Your task to perform on an android device: turn off wifi Image 0: 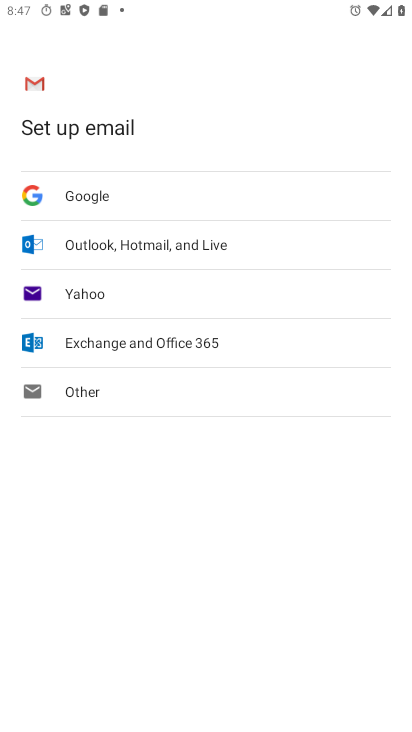
Step 0: press home button
Your task to perform on an android device: turn off wifi Image 1: 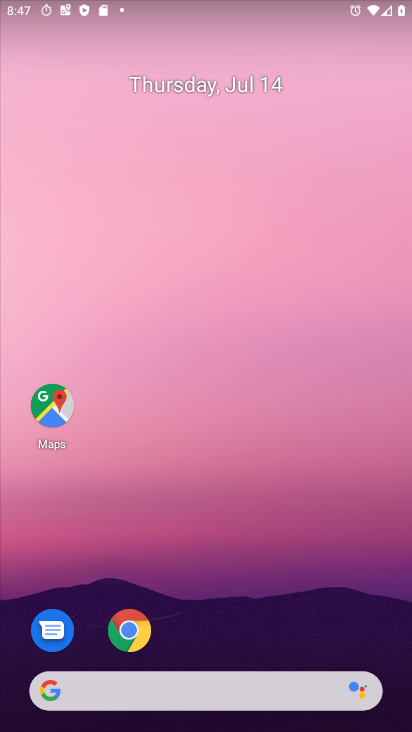
Step 1: drag from (245, 711) to (216, 93)
Your task to perform on an android device: turn off wifi Image 2: 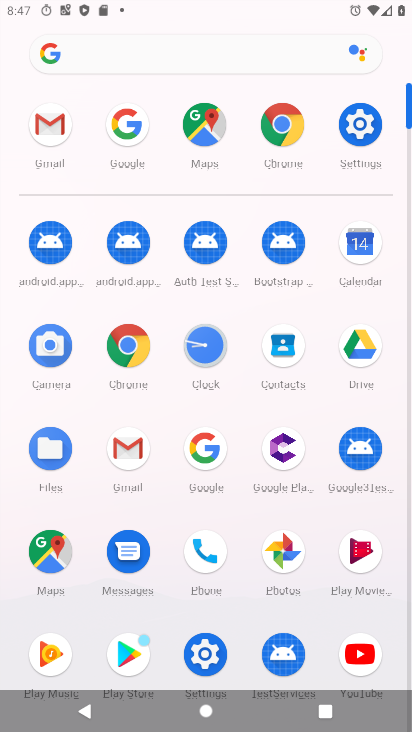
Step 2: click (362, 121)
Your task to perform on an android device: turn off wifi Image 3: 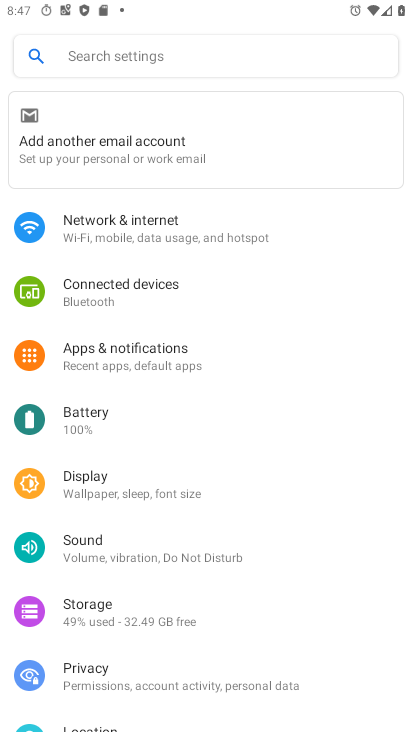
Step 3: click (122, 223)
Your task to perform on an android device: turn off wifi Image 4: 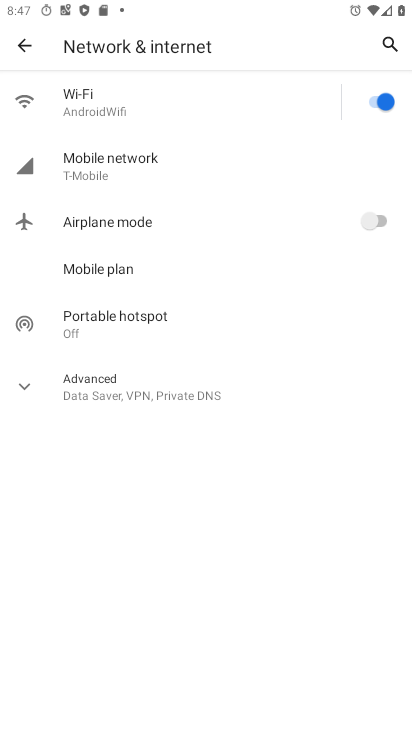
Step 4: click (374, 92)
Your task to perform on an android device: turn off wifi Image 5: 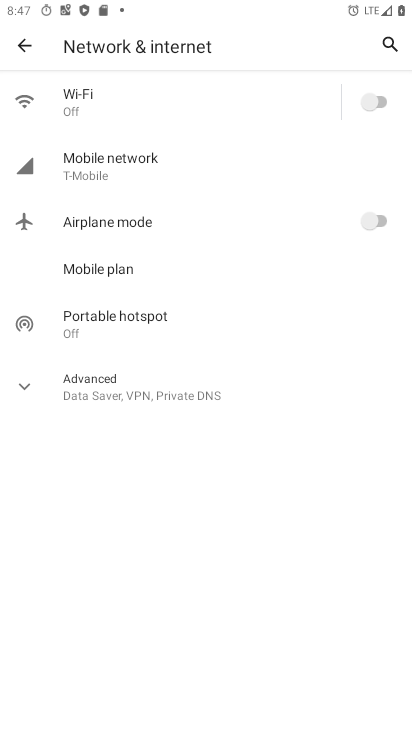
Step 5: task complete